Your task to perform on an android device: Open wifi settings Image 0: 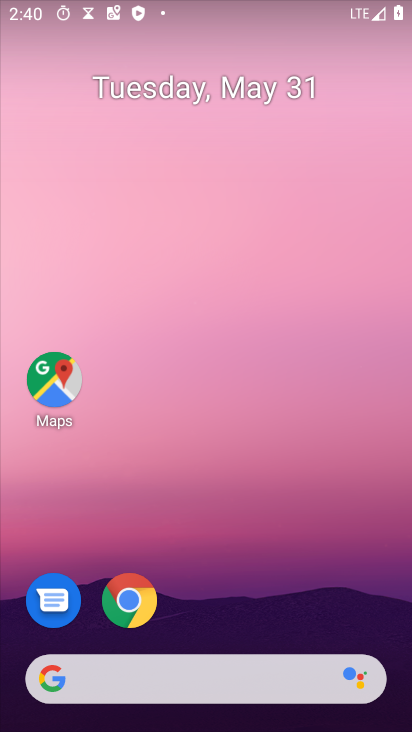
Step 0: drag from (220, 639) to (234, 15)
Your task to perform on an android device: Open wifi settings Image 1: 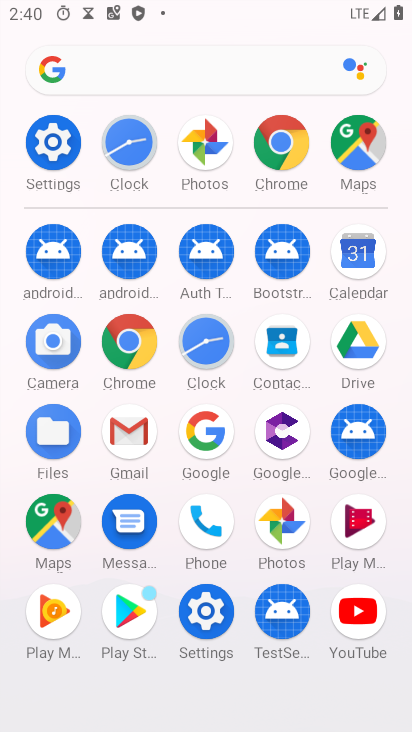
Step 1: click (49, 141)
Your task to perform on an android device: Open wifi settings Image 2: 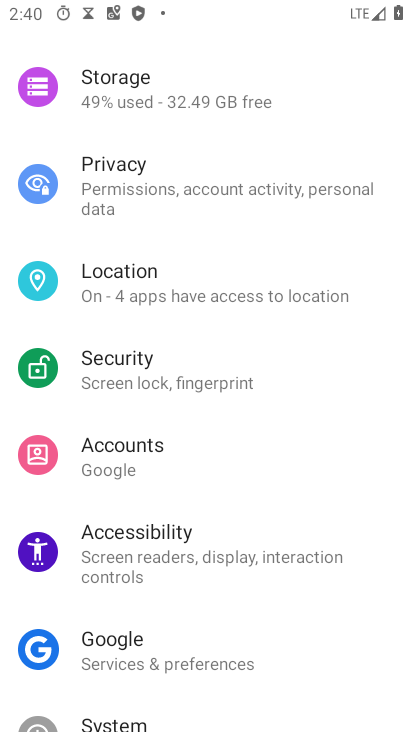
Step 2: drag from (171, 245) to (179, 706)
Your task to perform on an android device: Open wifi settings Image 3: 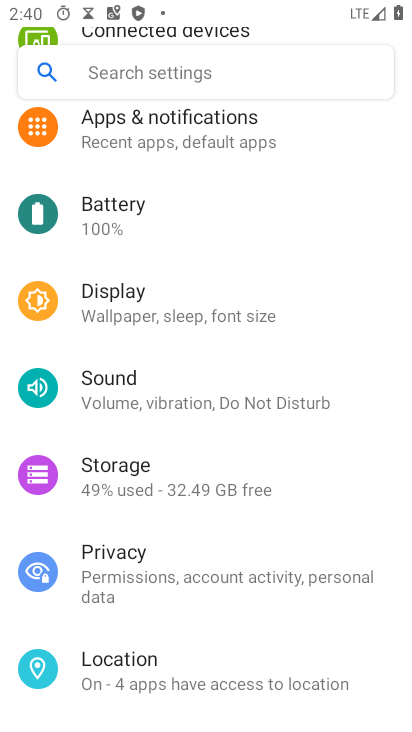
Step 3: drag from (146, 155) to (177, 645)
Your task to perform on an android device: Open wifi settings Image 4: 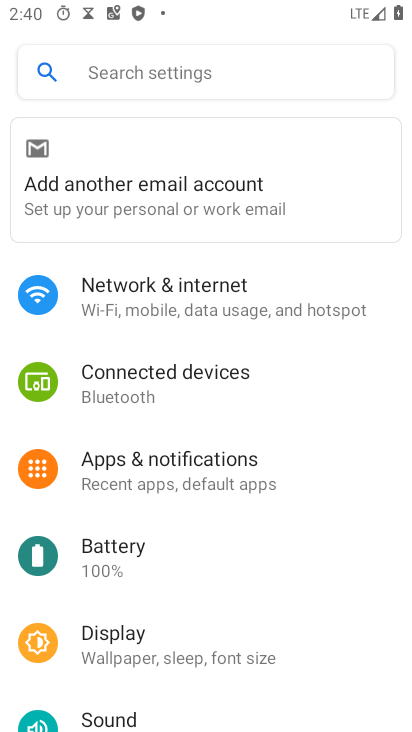
Step 4: click (210, 295)
Your task to perform on an android device: Open wifi settings Image 5: 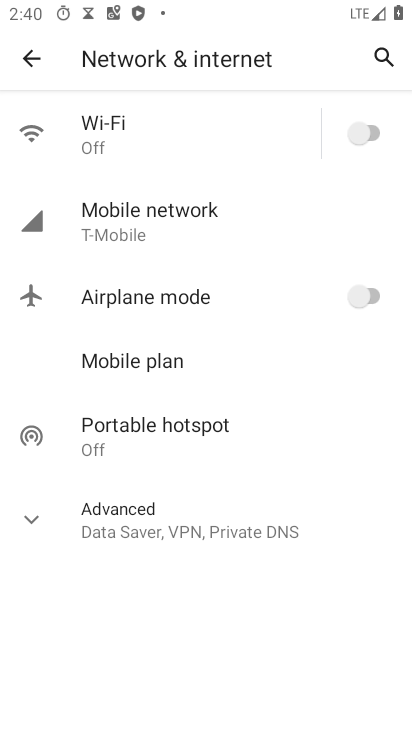
Step 5: click (373, 133)
Your task to perform on an android device: Open wifi settings Image 6: 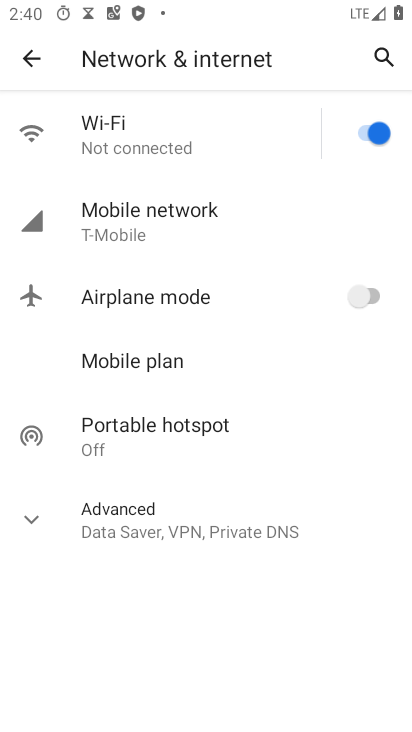
Step 6: click (246, 124)
Your task to perform on an android device: Open wifi settings Image 7: 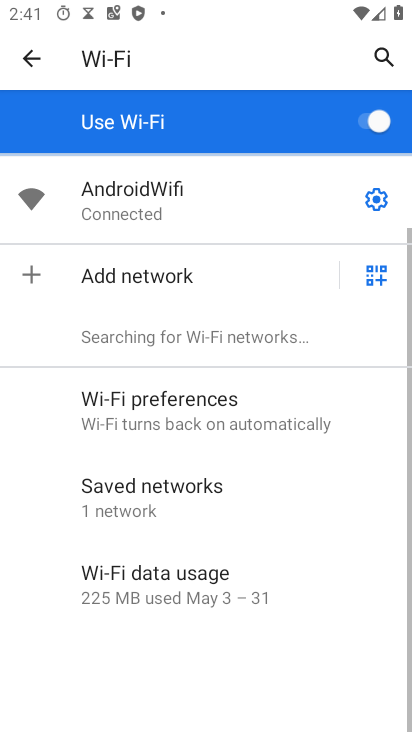
Step 7: task complete